Your task to perform on an android device: open device folders in google photos Image 0: 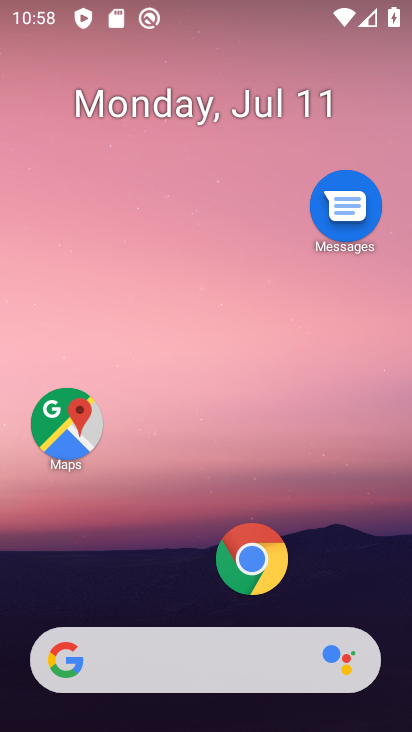
Step 0: drag from (391, 558) to (387, 202)
Your task to perform on an android device: open device folders in google photos Image 1: 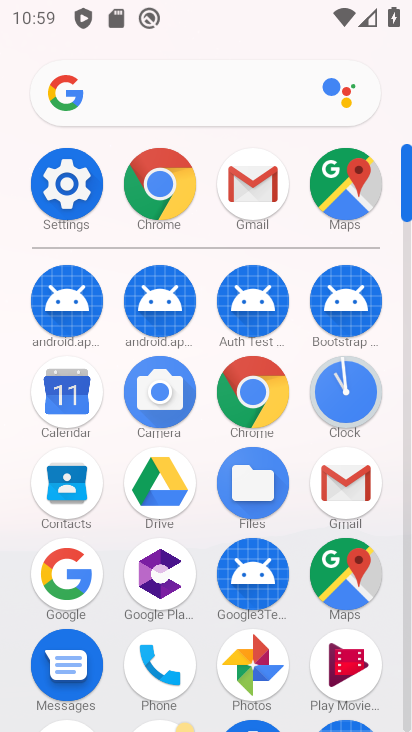
Step 1: click (263, 667)
Your task to perform on an android device: open device folders in google photos Image 2: 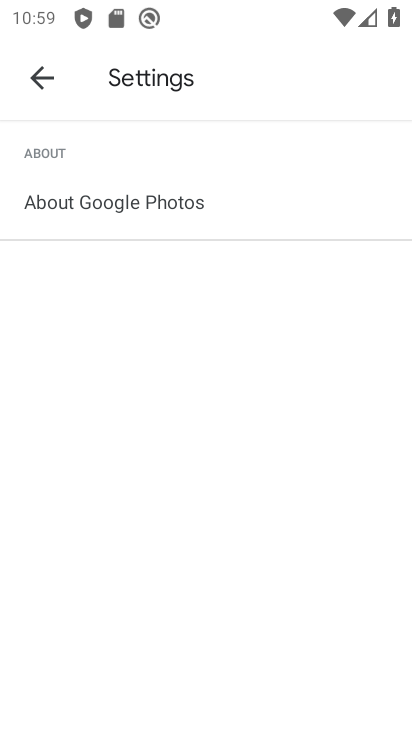
Step 2: press back button
Your task to perform on an android device: open device folders in google photos Image 3: 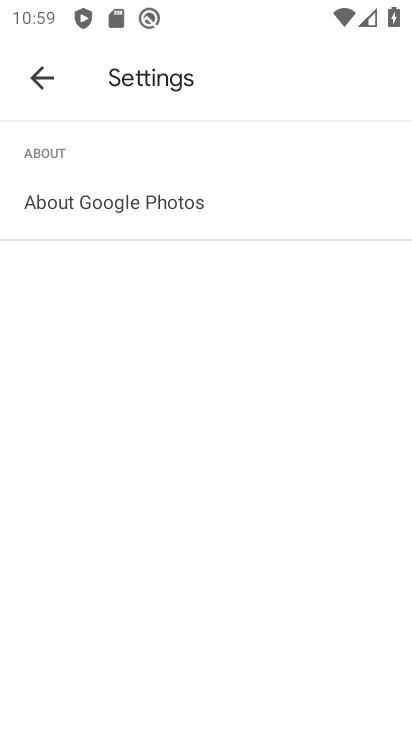
Step 3: press back button
Your task to perform on an android device: open device folders in google photos Image 4: 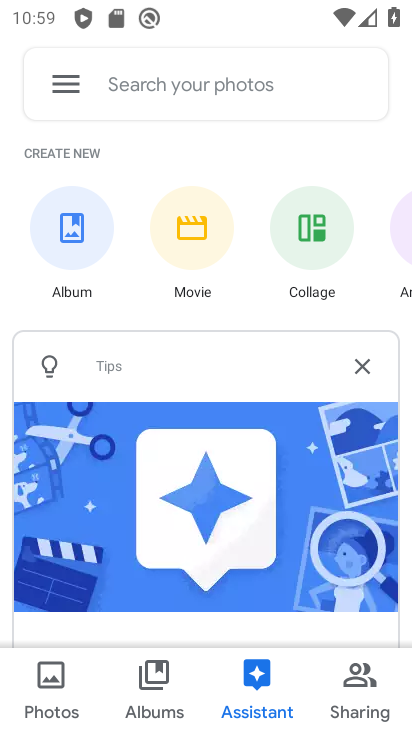
Step 4: click (61, 81)
Your task to perform on an android device: open device folders in google photos Image 5: 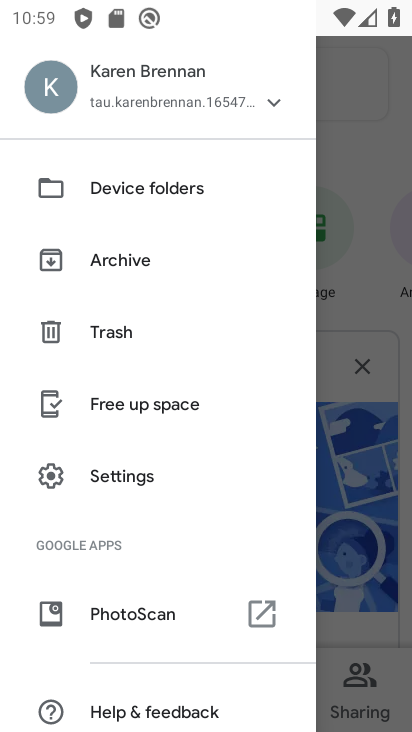
Step 5: click (159, 187)
Your task to perform on an android device: open device folders in google photos Image 6: 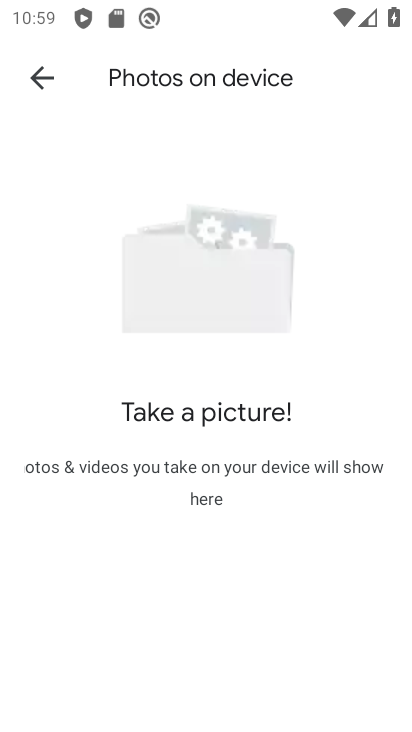
Step 6: task complete